Your task to perform on an android device: star an email in the gmail app Image 0: 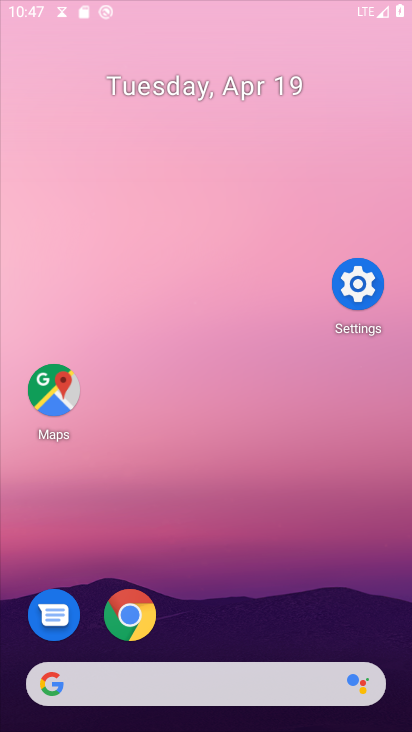
Step 0: drag from (239, 612) to (263, 37)
Your task to perform on an android device: star an email in the gmail app Image 1: 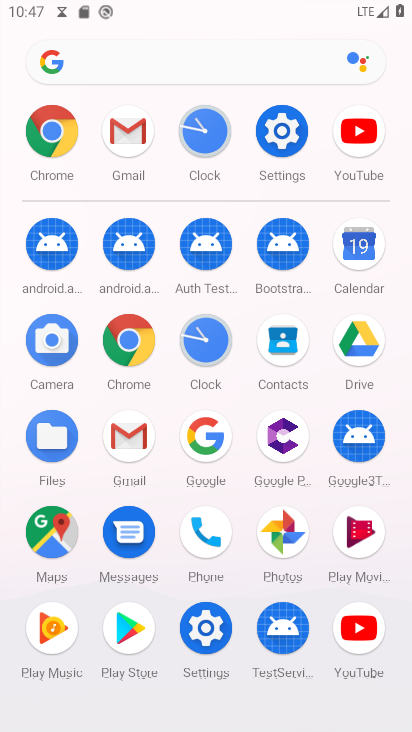
Step 1: drag from (167, 600) to (203, 118)
Your task to perform on an android device: star an email in the gmail app Image 2: 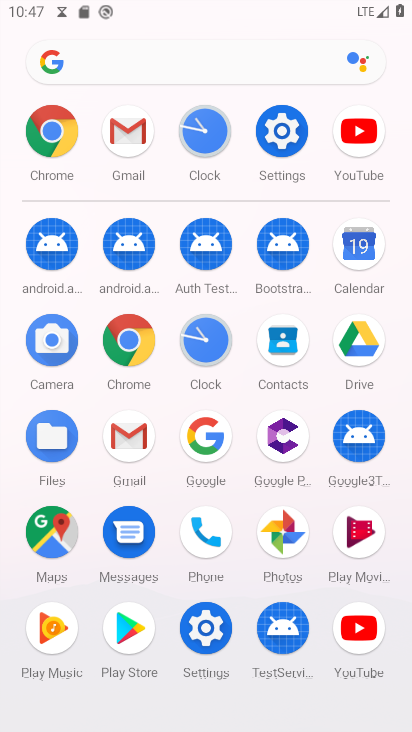
Step 2: click (120, 444)
Your task to perform on an android device: star an email in the gmail app Image 3: 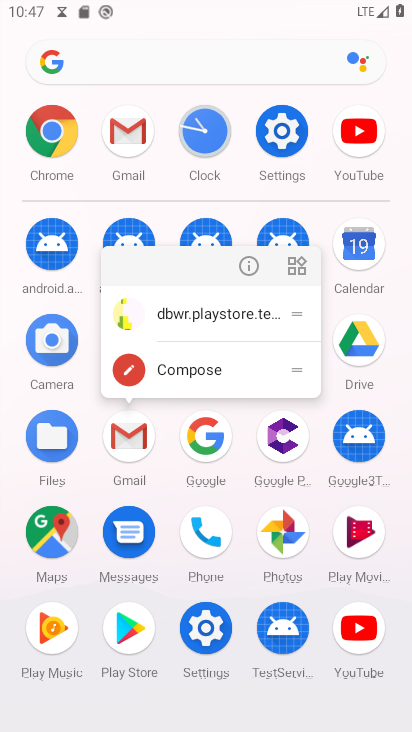
Step 3: click (249, 277)
Your task to perform on an android device: star an email in the gmail app Image 4: 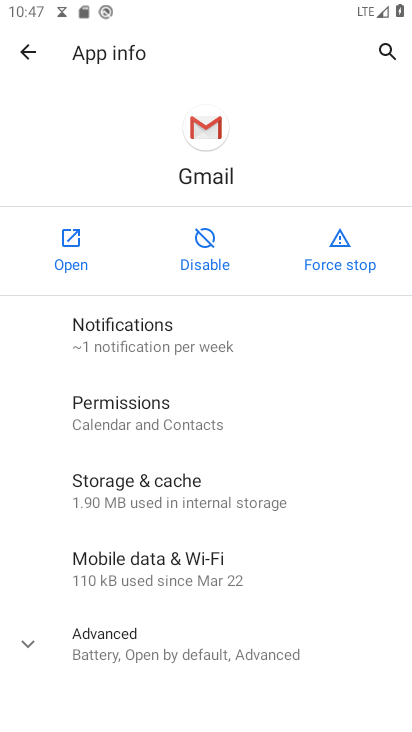
Step 4: click (59, 248)
Your task to perform on an android device: star an email in the gmail app Image 5: 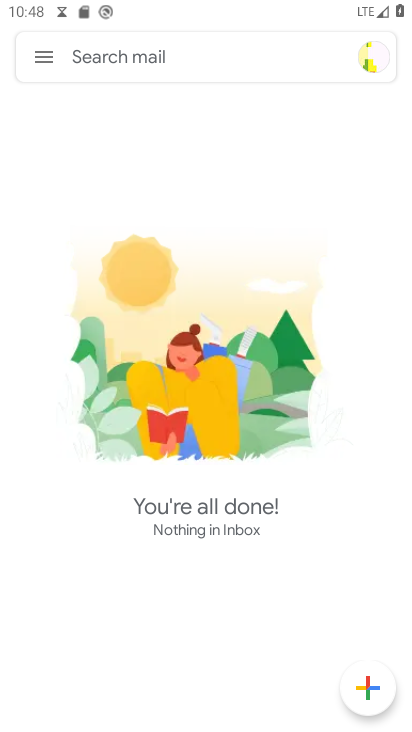
Step 5: drag from (243, 461) to (231, 288)
Your task to perform on an android device: star an email in the gmail app Image 6: 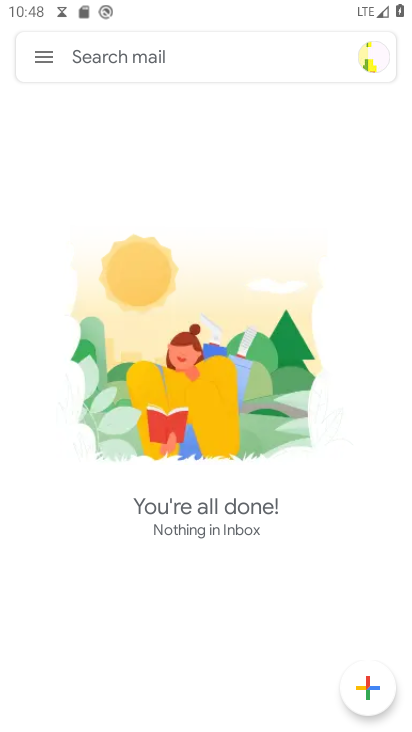
Step 6: drag from (243, 553) to (248, 276)
Your task to perform on an android device: star an email in the gmail app Image 7: 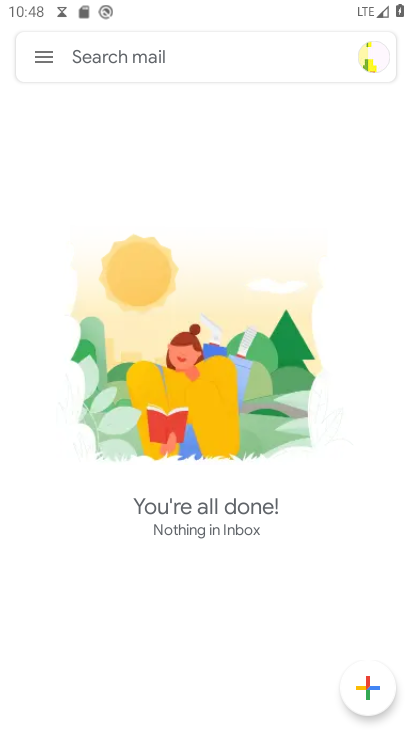
Step 7: drag from (201, 200) to (224, 689)
Your task to perform on an android device: star an email in the gmail app Image 8: 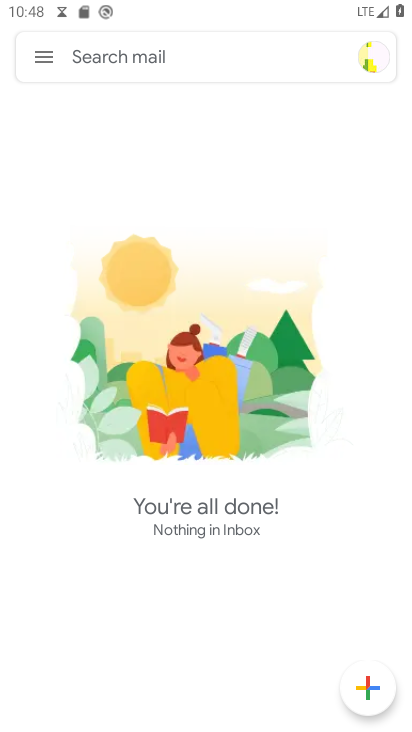
Step 8: drag from (211, 225) to (327, 723)
Your task to perform on an android device: star an email in the gmail app Image 9: 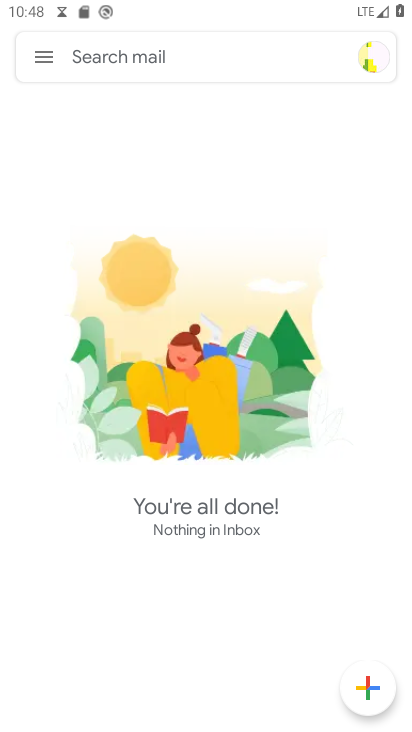
Step 9: click (40, 60)
Your task to perform on an android device: star an email in the gmail app Image 10: 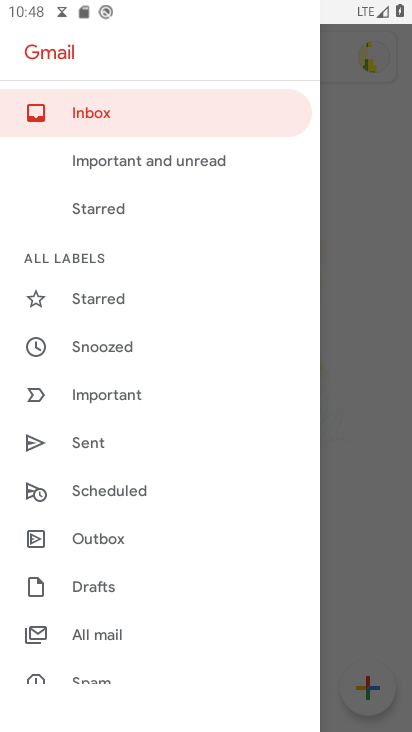
Step 10: click (130, 290)
Your task to perform on an android device: star an email in the gmail app Image 11: 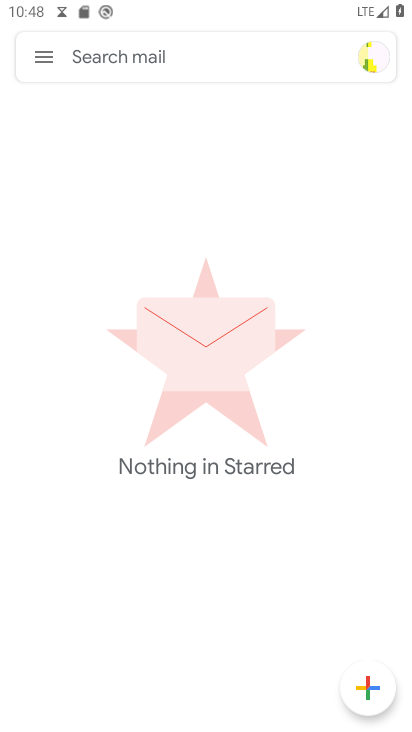
Step 11: drag from (212, 593) to (242, 267)
Your task to perform on an android device: star an email in the gmail app Image 12: 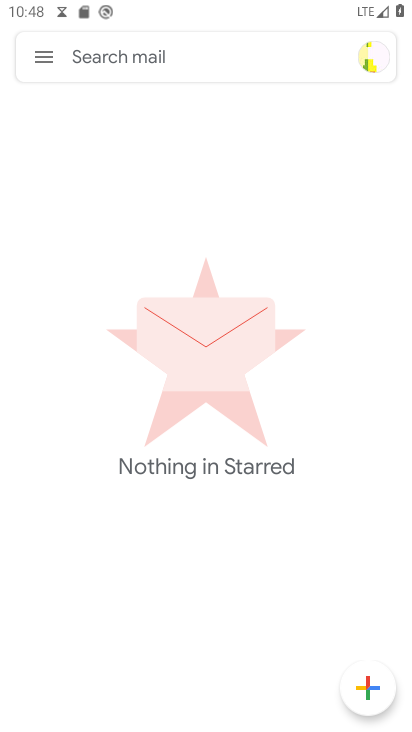
Step 12: drag from (299, 603) to (274, 185)
Your task to perform on an android device: star an email in the gmail app Image 13: 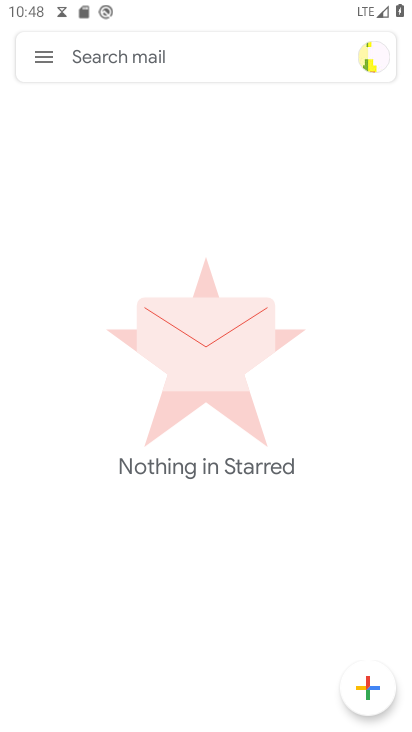
Step 13: drag from (232, 517) to (282, 176)
Your task to perform on an android device: star an email in the gmail app Image 14: 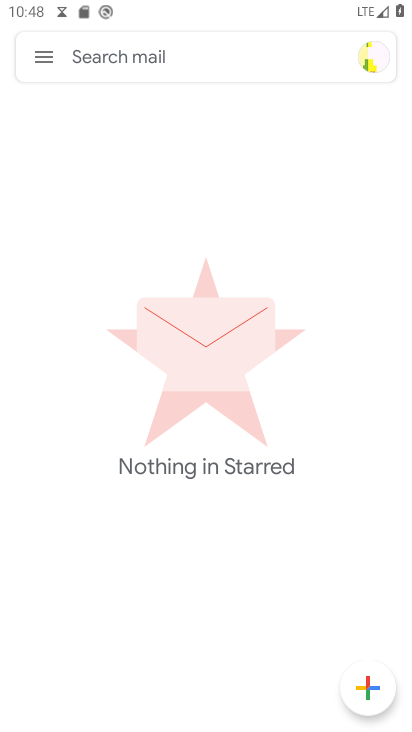
Step 14: click (308, 507)
Your task to perform on an android device: star an email in the gmail app Image 15: 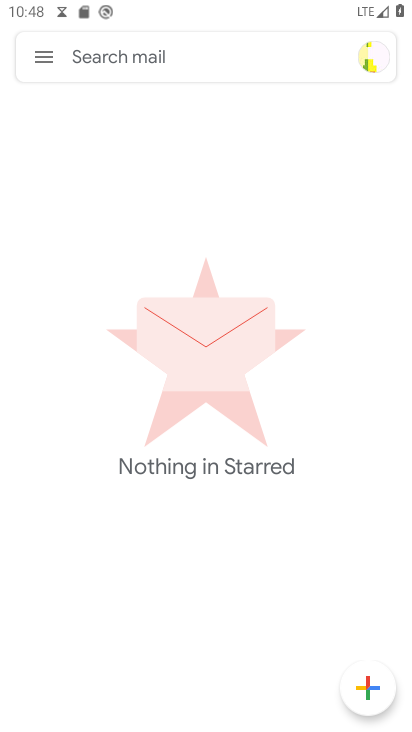
Step 15: drag from (268, 462) to (249, 372)
Your task to perform on an android device: star an email in the gmail app Image 16: 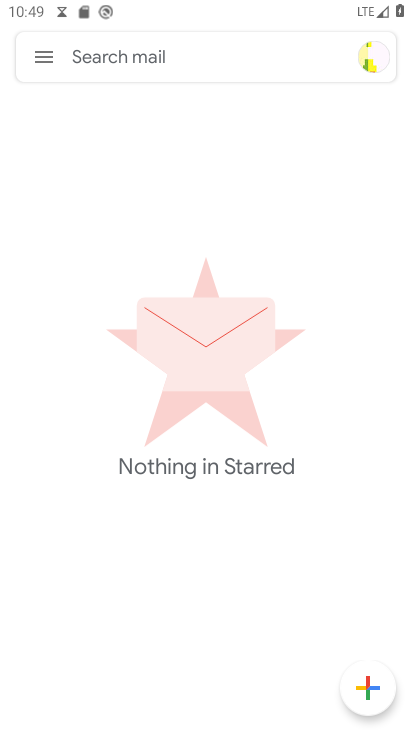
Step 16: drag from (302, 394) to (265, 218)
Your task to perform on an android device: star an email in the gmail app Image 17: 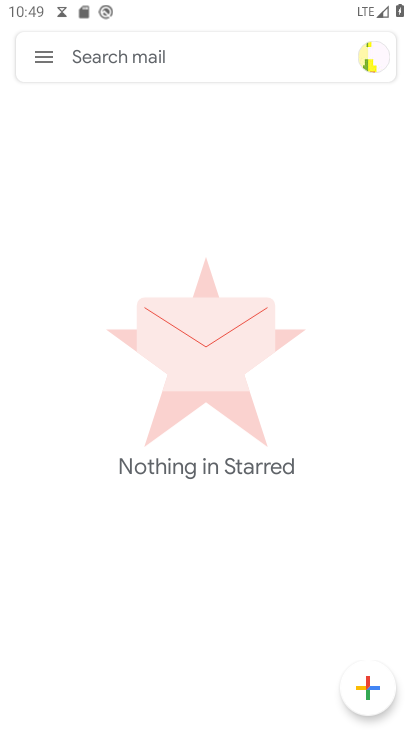
Step 17: drag from (126, 355) to (267, 558)
Your task to perform on an android device: star an email in the gmail app Image 18: 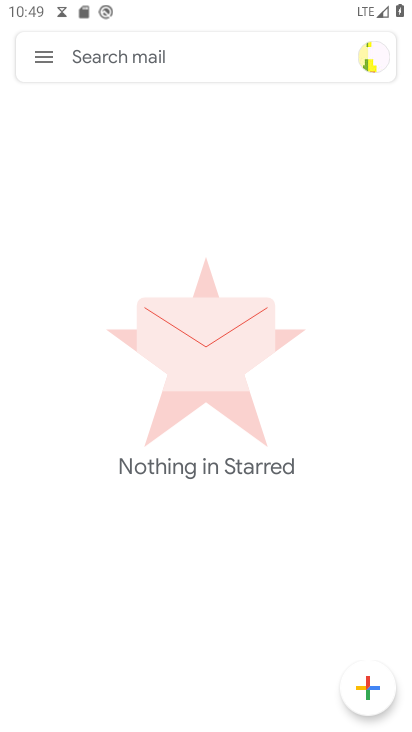
Step 18: click (223, 276)
Your task to perform on an android device: star an email in the gmail app Image 19: 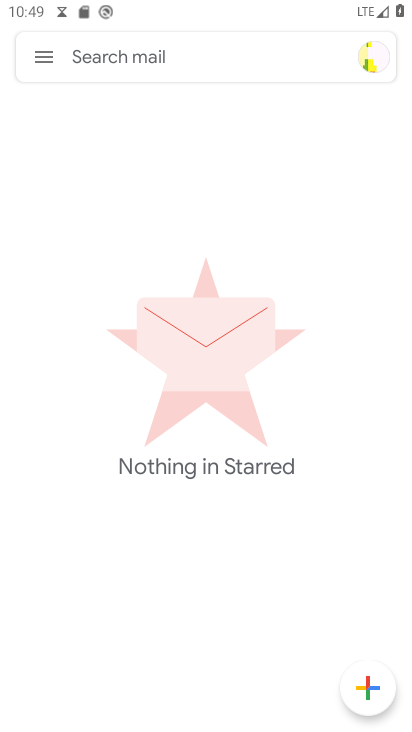
Step 19: drag from (189, 199) to (343, 491)
Your task to perform on an android device: star an email in the gmail app Image 20: 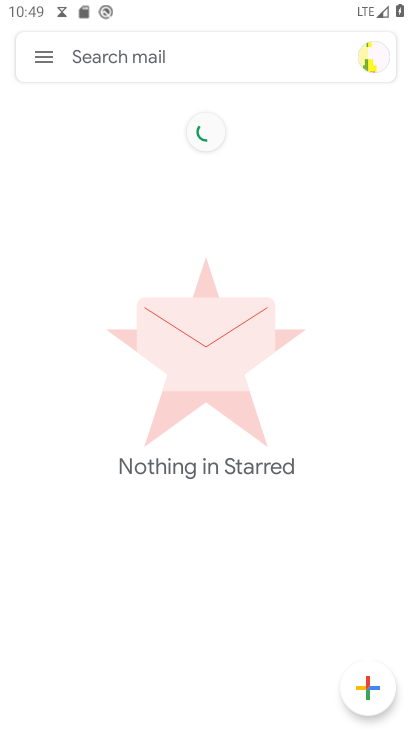
Step 20: click (221, 382)
Your task to perform on an android device: star an email in the gmail app Image 21: 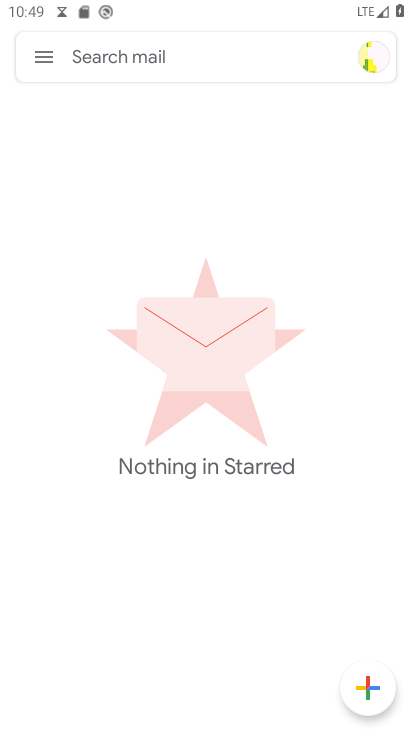
Step 21: task complete